Your task to perform on an android device: What's on my calendar today? Image 0: 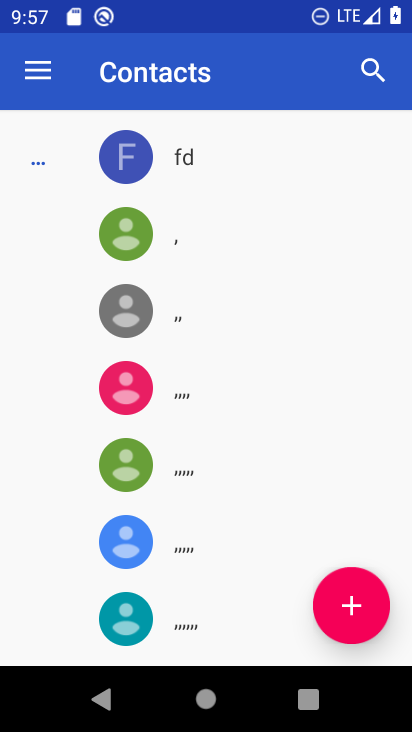
Step 0: press home button
Your task to perform on an android device: What's on my calendar today? Image 1: 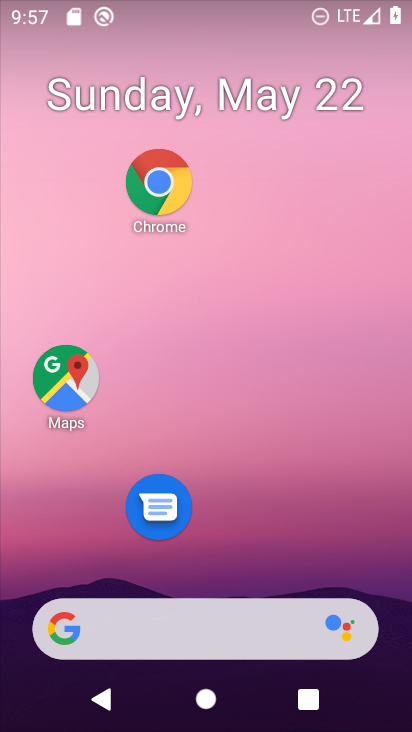
Step 1: drag from (246, 493) to (254, 0)
Your task to perform on an android device: What's on my calendar today? Image 2: 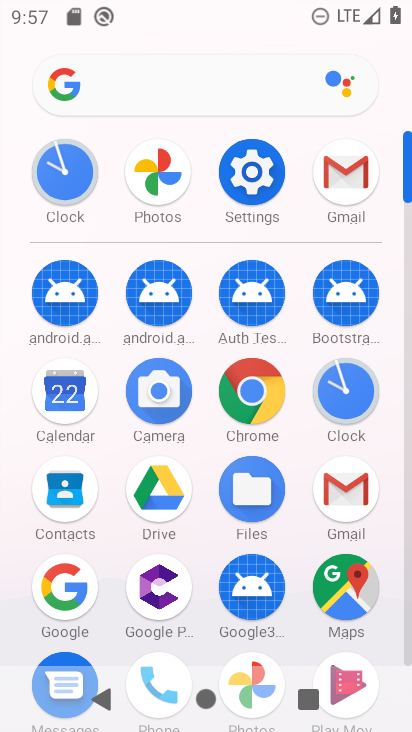
Step 2: click (55, 392)
Your task to perform on an android device: What's on my calendar today? Image 3: 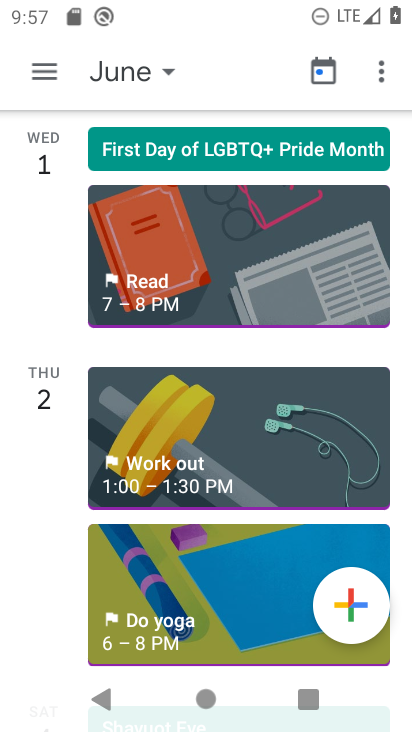
Step 3: drag from (105, 77) to (180, 659)
Your task to perform on an android device: What's on my calendar today? Image 4: 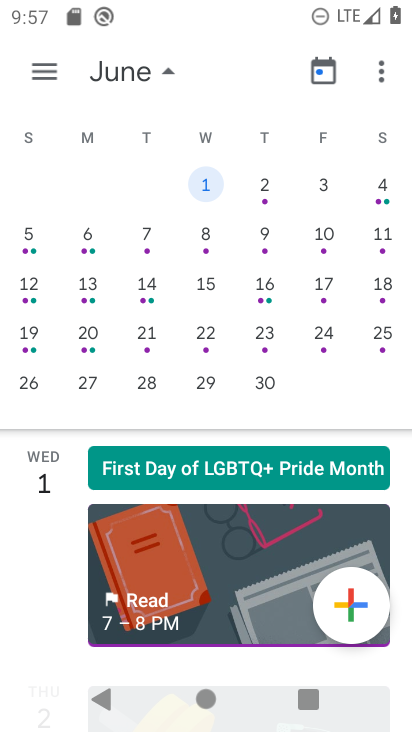
Step 4: drag from (115, 289) to (410, 253)
Your task to perform on an android device: What's on my calendar today? Image 5: 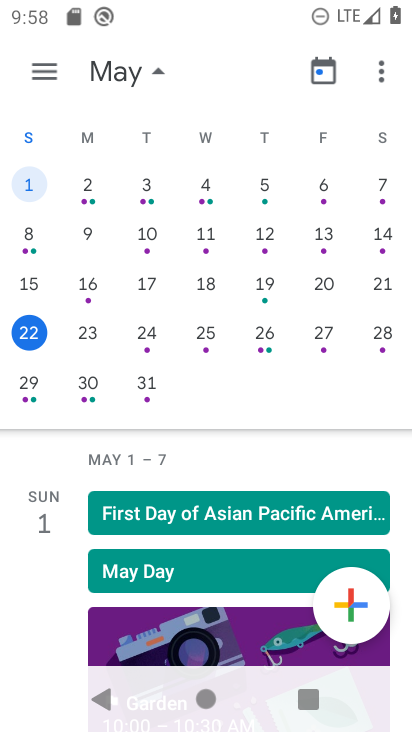
Step 5: click (36, 334)
Your task to perform on an android device: What's on my calendar today? Image 6: 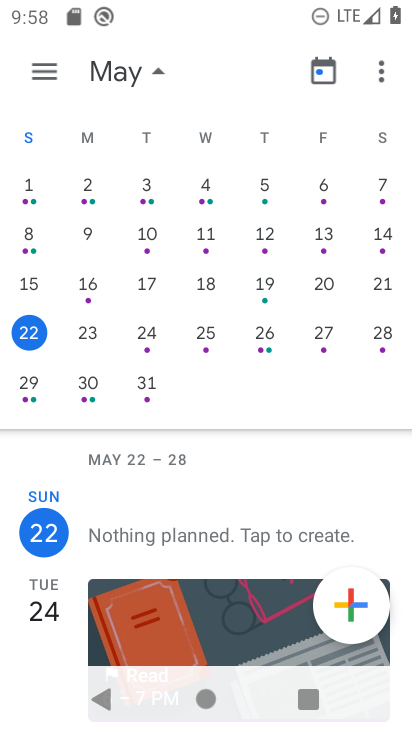
Step 6: task complete